Your task to perform on an android device: Go to display settings Image 0: 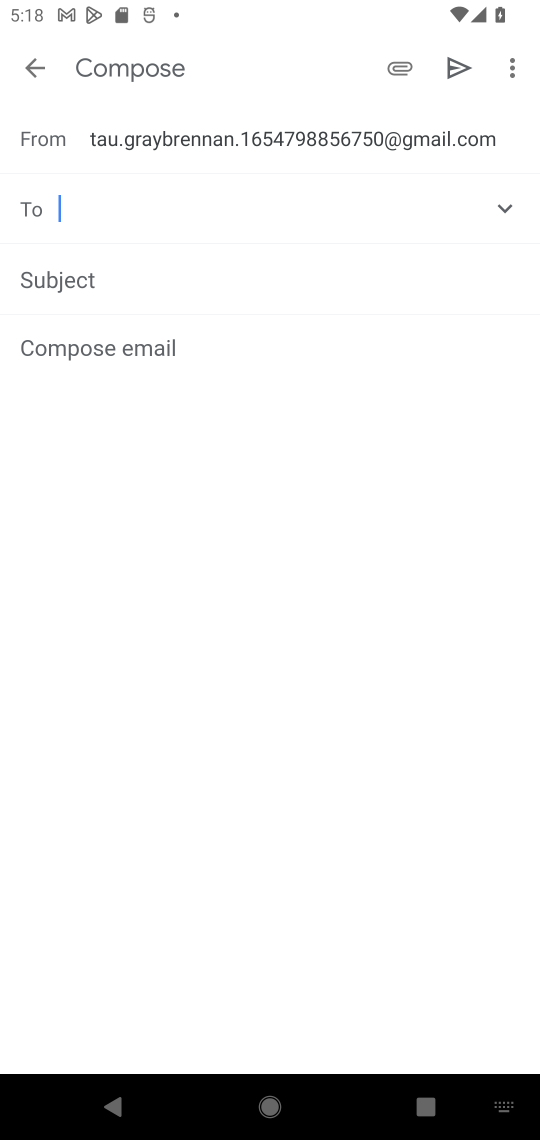
Step 0: press home button
Your task to perform on an android device: Go to display settings Image 1: 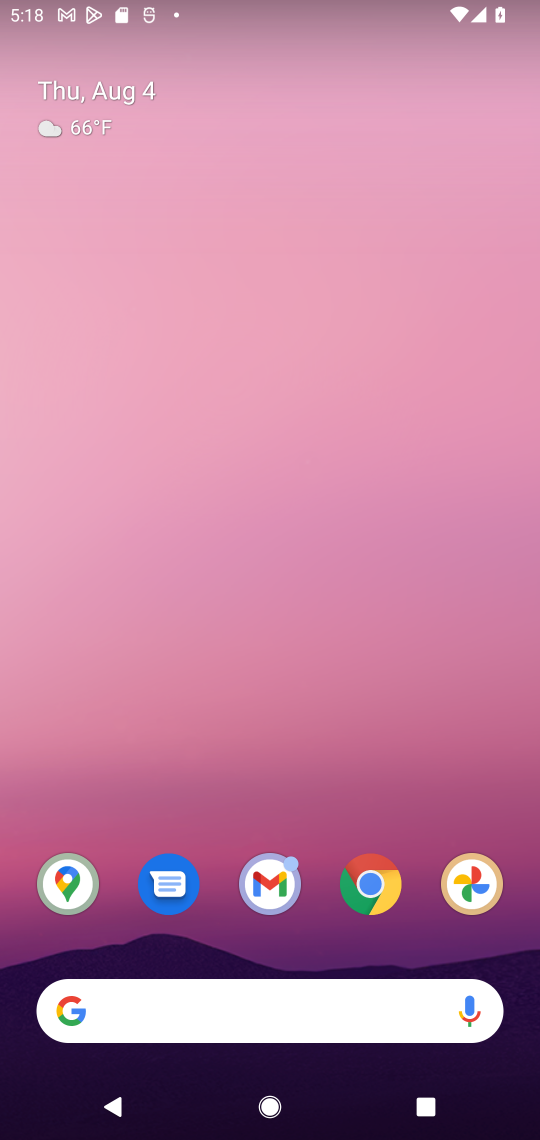
Step 1: drag from (297, 961) to (303, 99)
Your task to perform on an android device: Go to display settings Image 2: 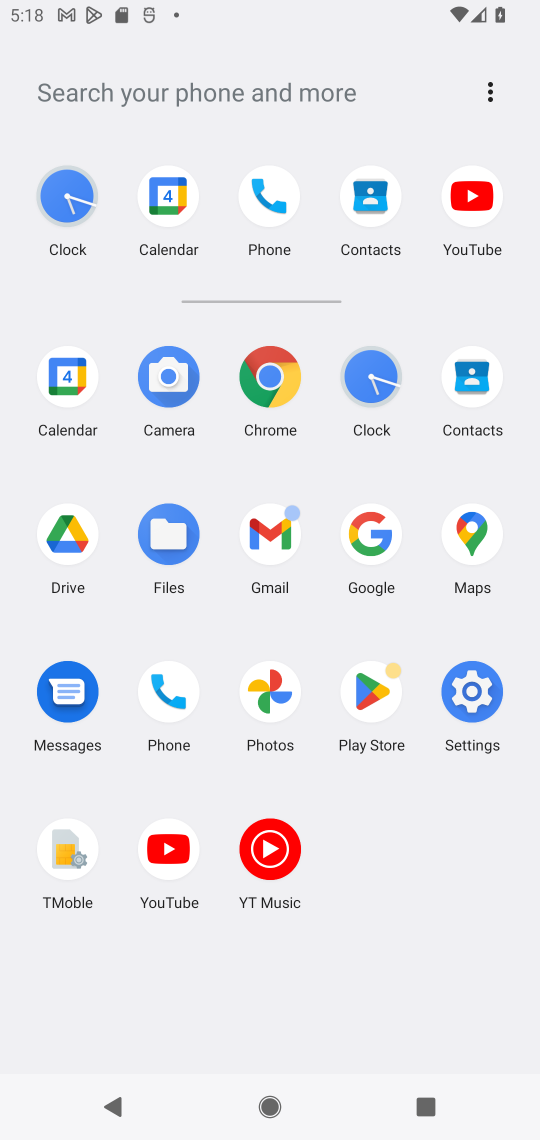
Step 2: click (489, 692)
Your task to perform on an android device: Go to display settings Image 3: 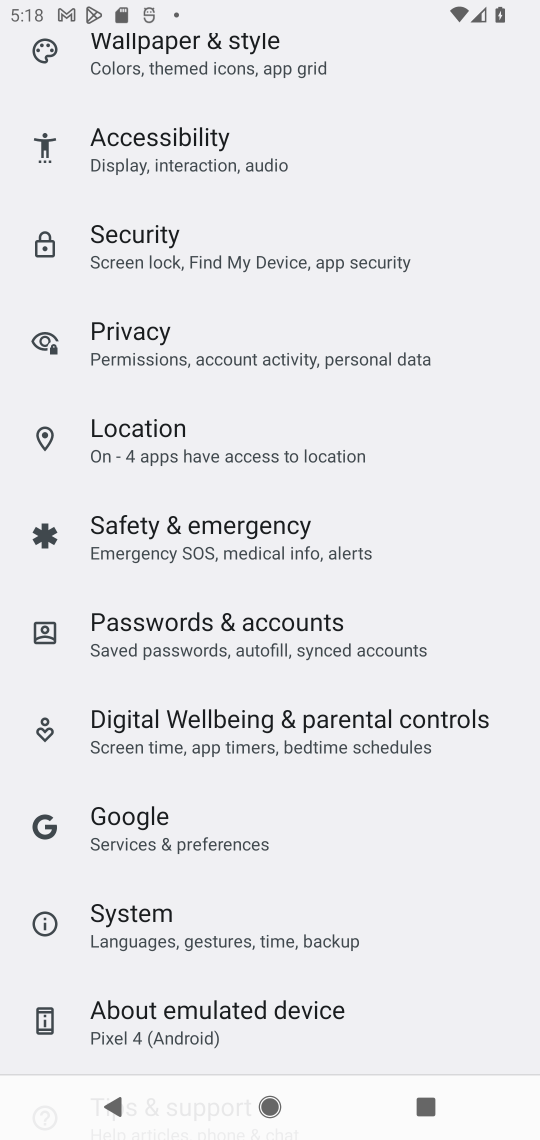
Step 3: drag from (252, 725) to (281, 1126)
Your task to perform on an android device: Go to display settings Image 4: 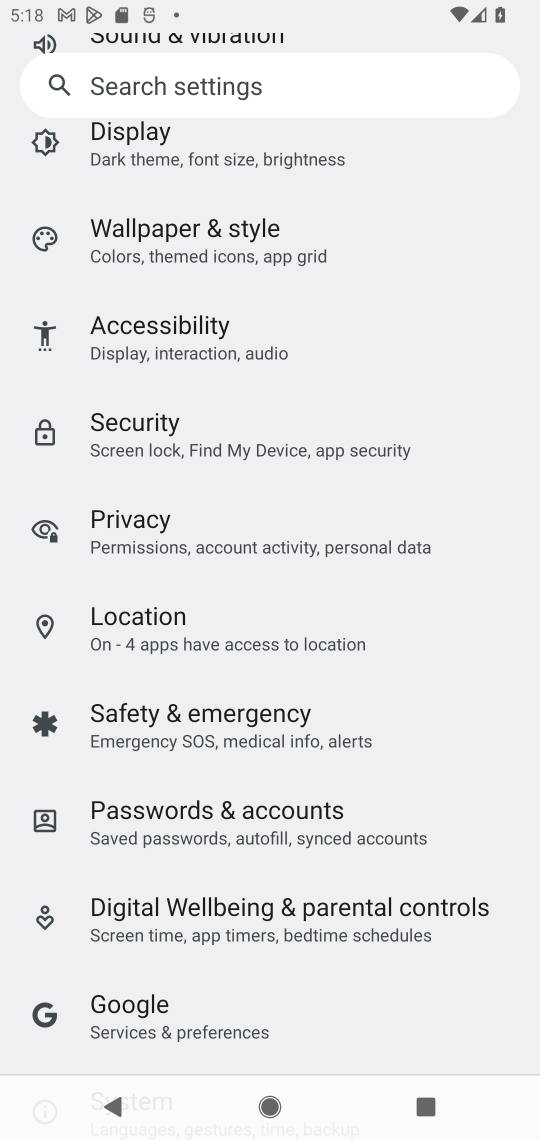
Step 4: drag from (305, 344) to (363, 911)
Your task to perform on an android device: Go to display settings Image 5: 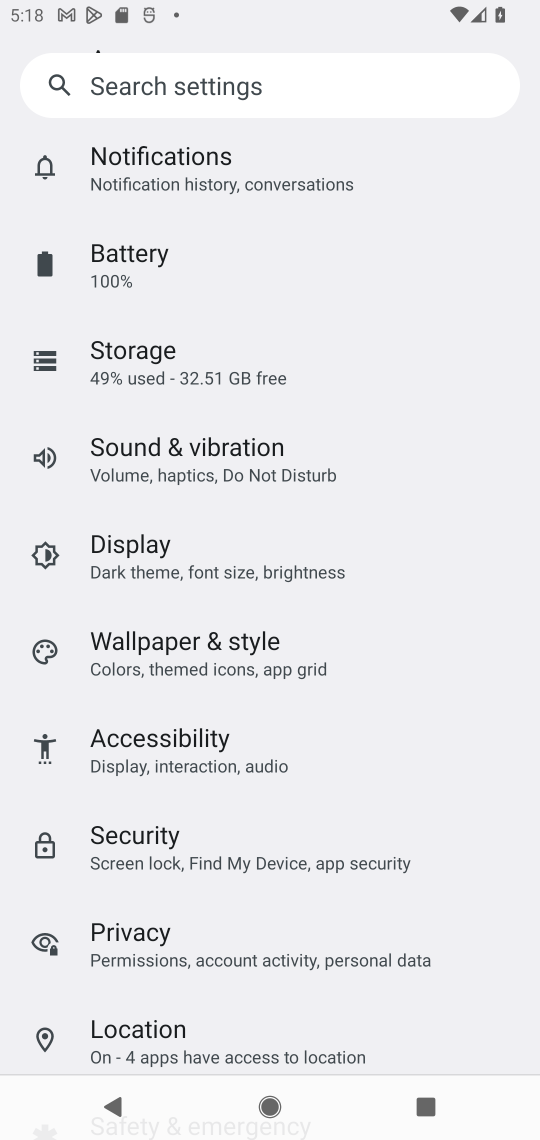
Step 5: click (240, 532)
Your task to perform on an android device: Go to display settings Image 6: 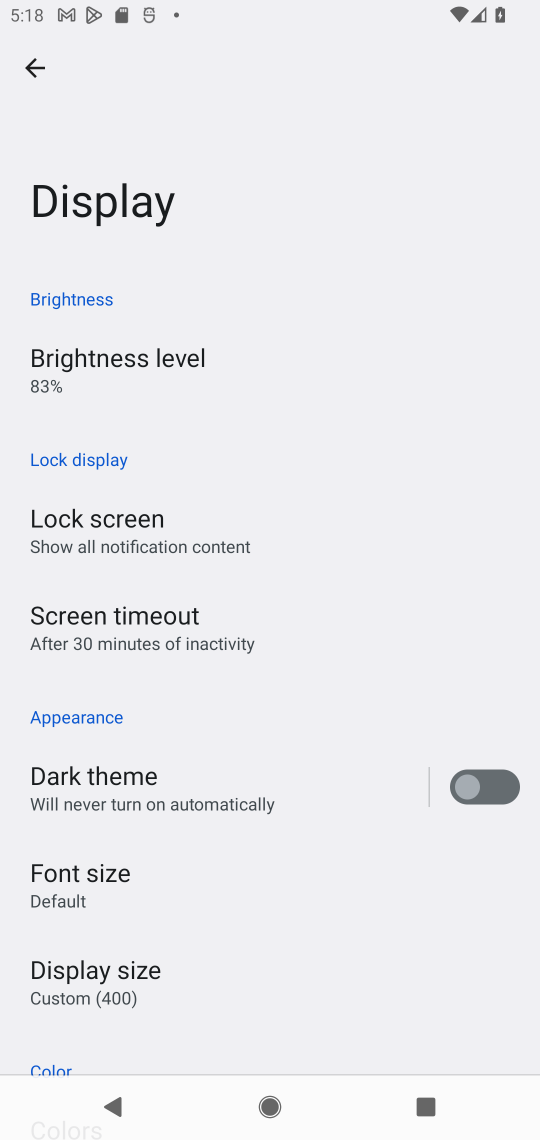
Step 6: task complete